Your task to perform on an android device: clear all cookies in the chrome app Image 0: 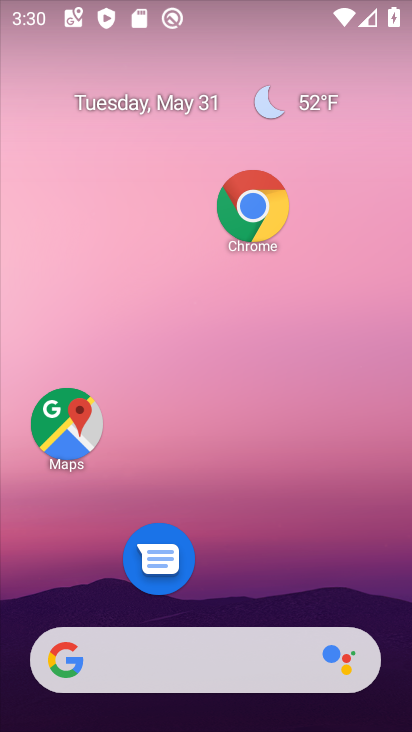
Step 0: click (252, 217)
Your task to perform on an android device: clear all cookies in the chrome app Image 1: 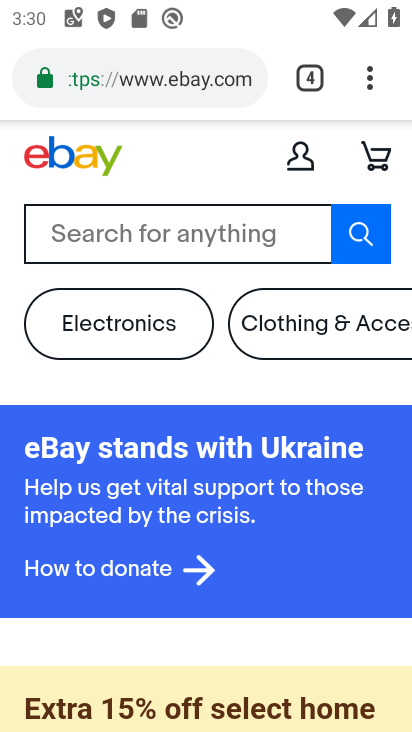
Step 1: click (370, 77)
Your task to perform on an android device: clear all cookies in the chrome app Image 2: 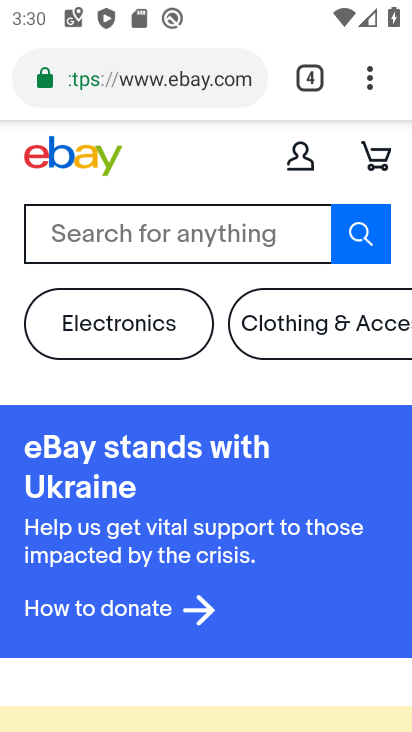
Step 2: drag from (371, 72) to (112, 426)
Your task to perform on an android device: clear all cookies in the chrome app Image 3: 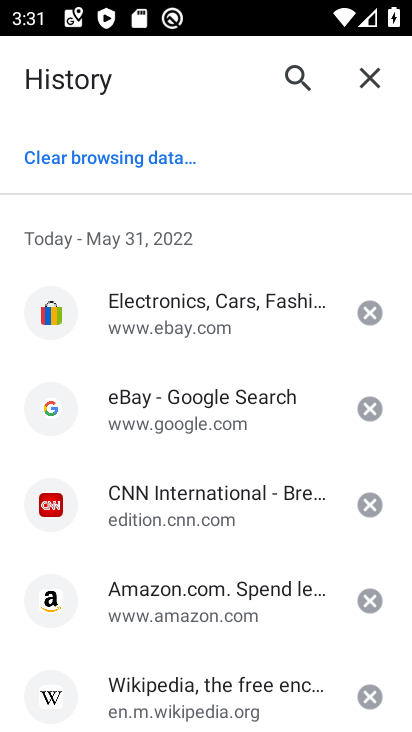
Step 3: click (162, 157)
Your task to perform on an android device: clear all cookies in the chrome app Image 4: 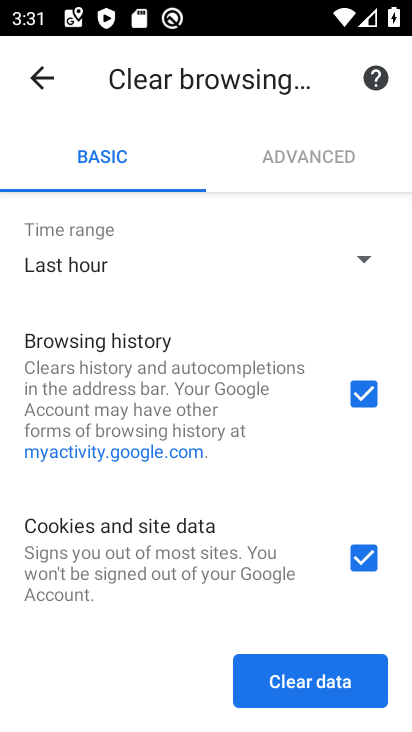
Step 4: click (302, 698)
Your task to perform on an android device: clear all cookies in the chrome app Image 5: 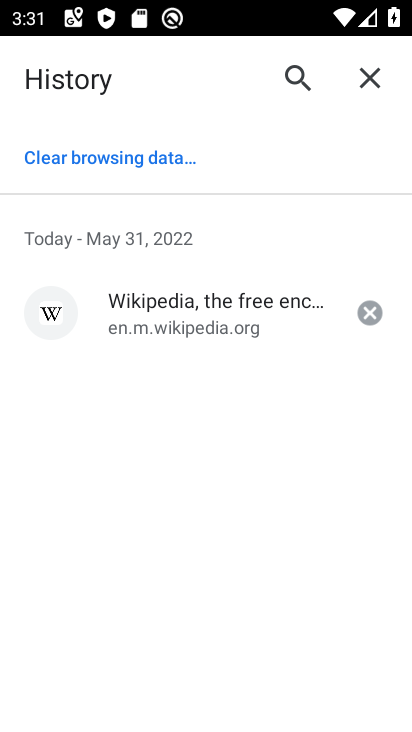
Step 5: task complete